Your task to perform on an android device: turn on notifications settings in the gmail app Image 0: 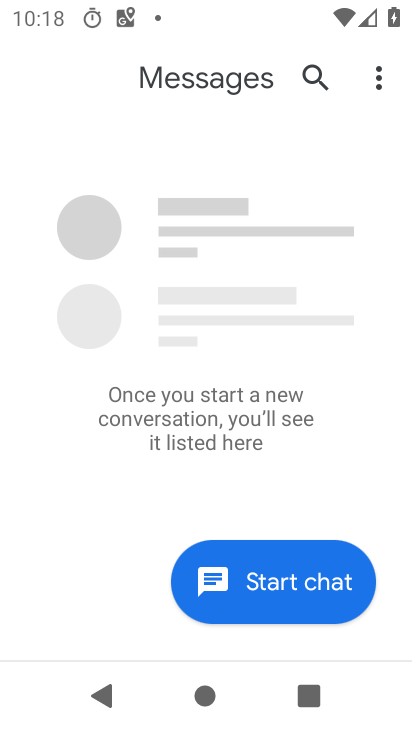
Step 0: press home button
Your task to perform on an android device: turn on notifications settings in the gmail app Image 1: 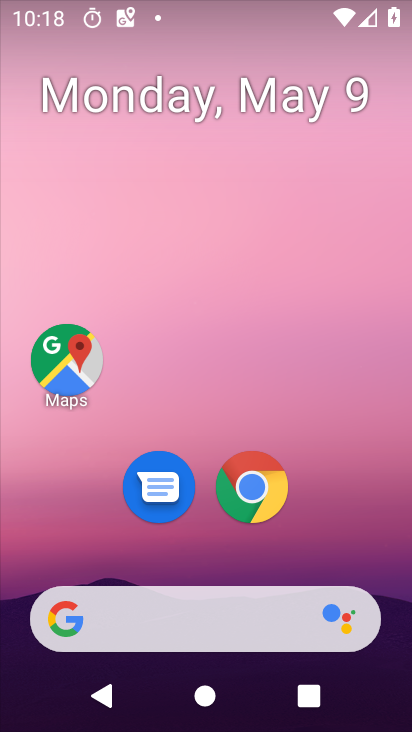
Step 1: drag from (291, 511) to (292, 86)
Your task to perform on an android device: turn on notifications settings in the gmail app Image 2: 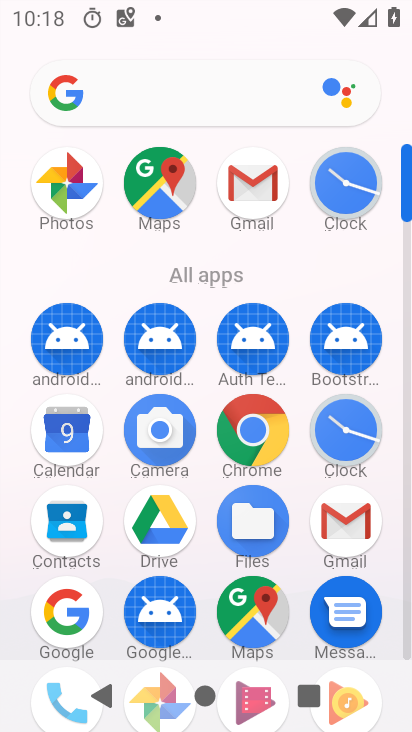
Step 2: click (258, 183)
Your task to perform on an android device: turn on notifications settings in the gmail app Image 3: 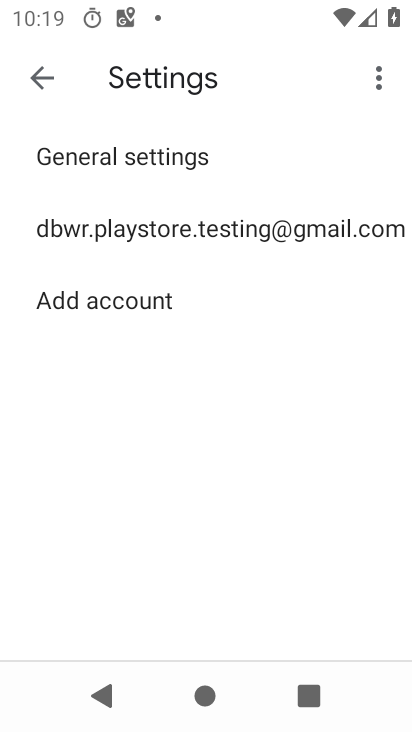
Step 3: click (123, 228)
Your task to perform on an android device: turn on notifications settings in the gmail app Image 4: 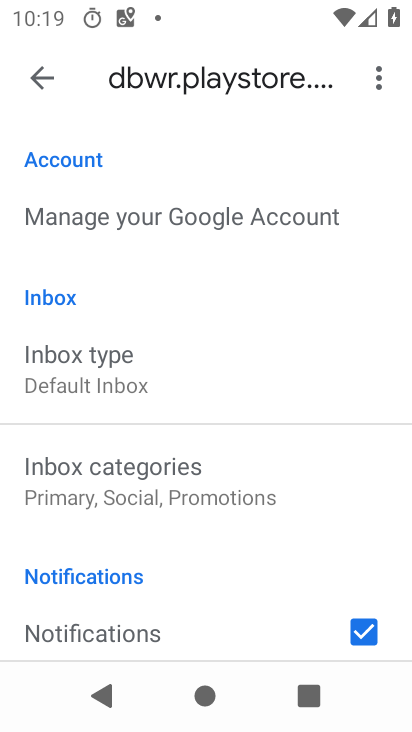
Step 4: drag from (178, 591) to (176, 197)
Your task to perform on an android device: turn on notifications settings in the gmail app Image 5: 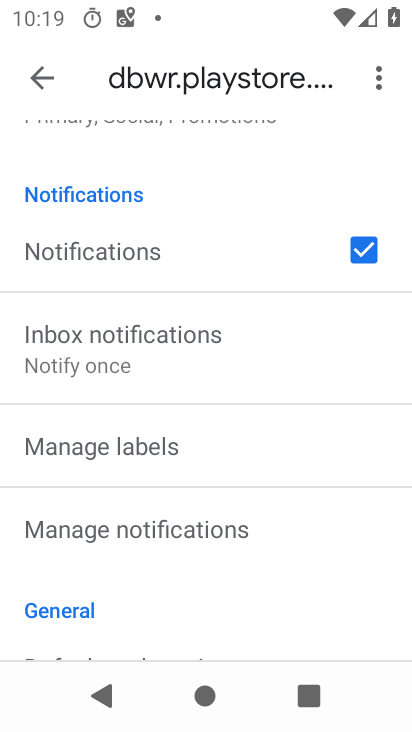
Step 5: click (100, 522)
Your task to perform on an android device: turn on notifications settings in the gmail app Image 6: 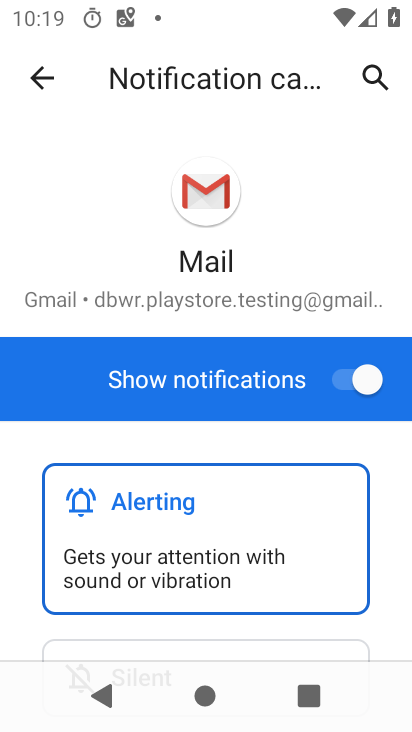
Step 6: task complete